Your task to perform on an android device: Go to Google maps Image 0: 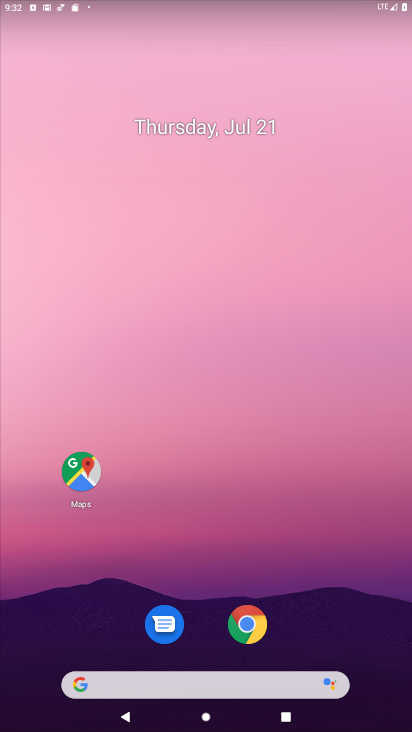
Step 0: click (74, 472)
Your task to perform on an android device: Go to Google maps Image 1: 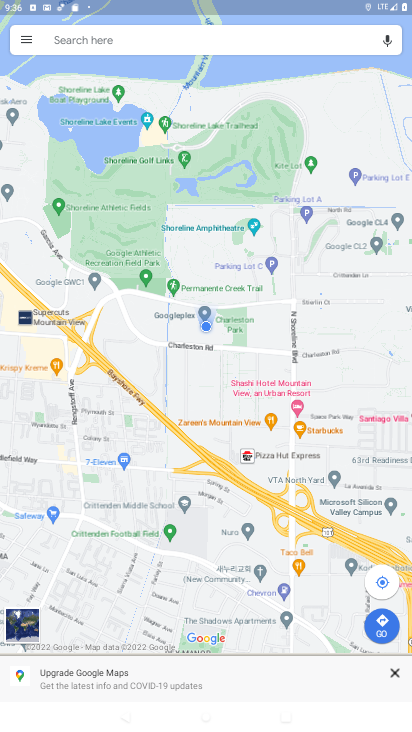
Step 1: task complete